Your task to perform on an android device: change timer sound Image 0: 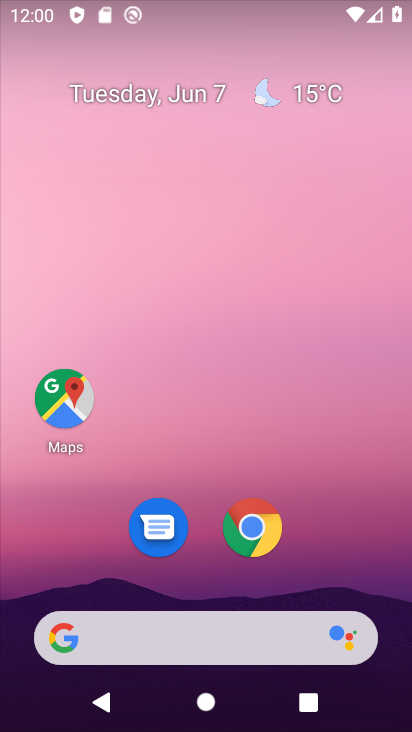
Step 0: drag from (190, 573) to (187, 212)
Your task to perform on an android device: change timer sound Image 1: 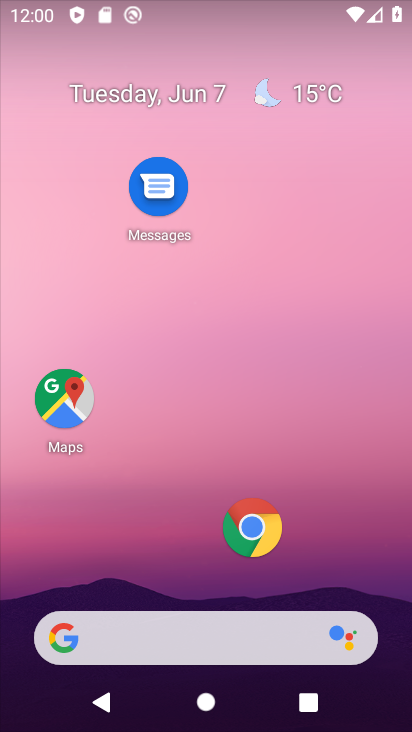
Step 1: drag from (228, 587) to (284, 183)
Your task to perform on an android device: change timer sound Image 2: 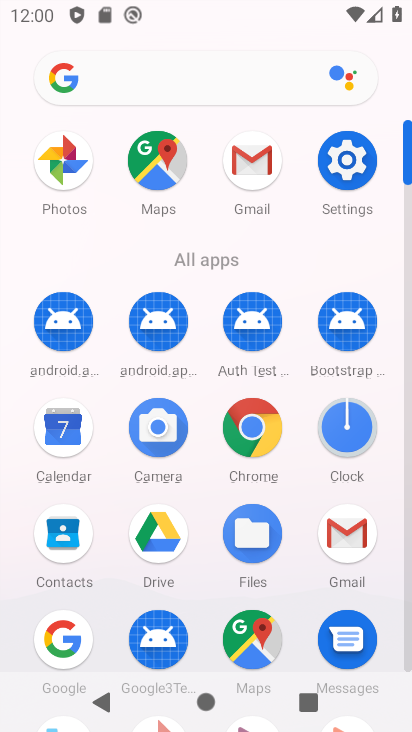
Step 2: click (343, 438)
Your task to perform on an android device: change timer sound Image 3: 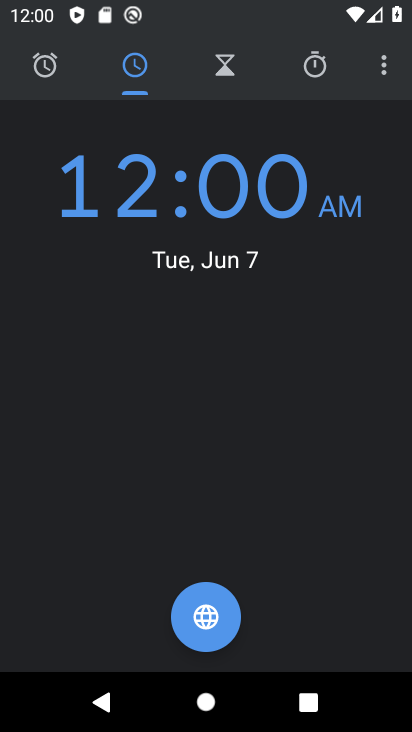
Step 3: click (234, 66)
Your task to perform on an android device: change timer sound Image 4: 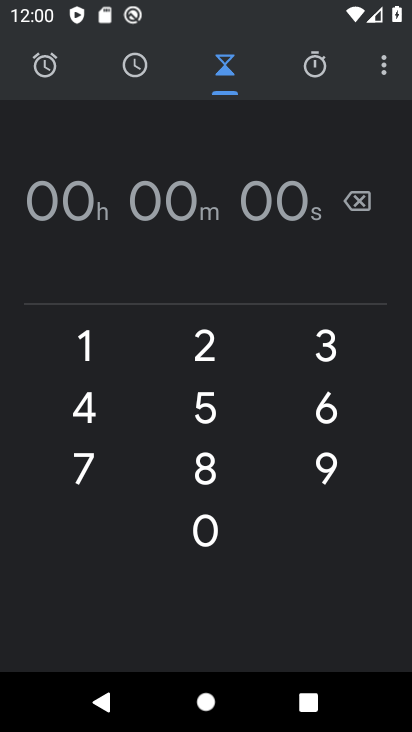
Step 4: click (223, 531)
Your task to perform on an android device: change timer sound Image 5: 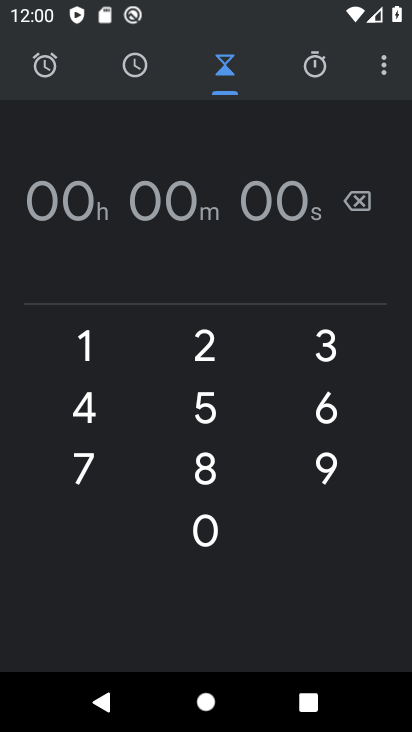
Step 5: click (209, 395)
Your task to perform on an android device: change timer sound Image 6: 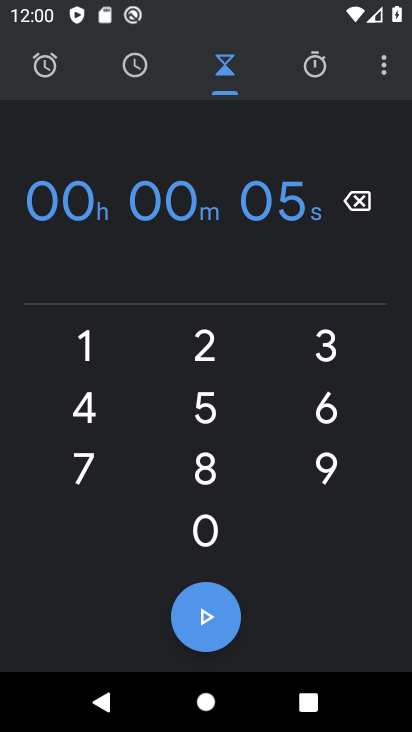
Step 6: click (200, 535)
Your task to perform on an android device: change timer sound Image 7: 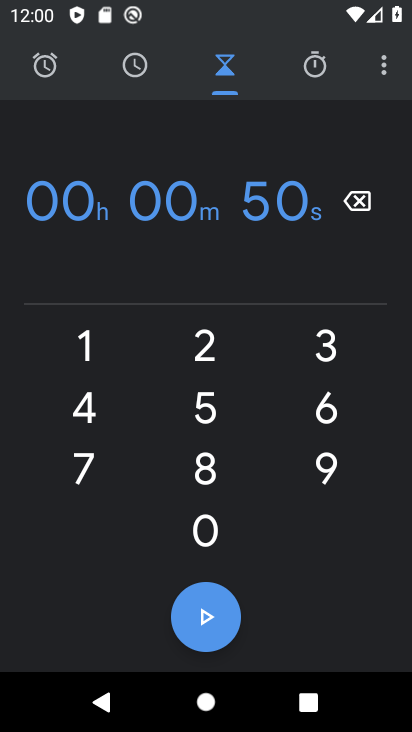
Step 7: click (200, 535)
Your task to perform on an android device: change timer sound Image 8: 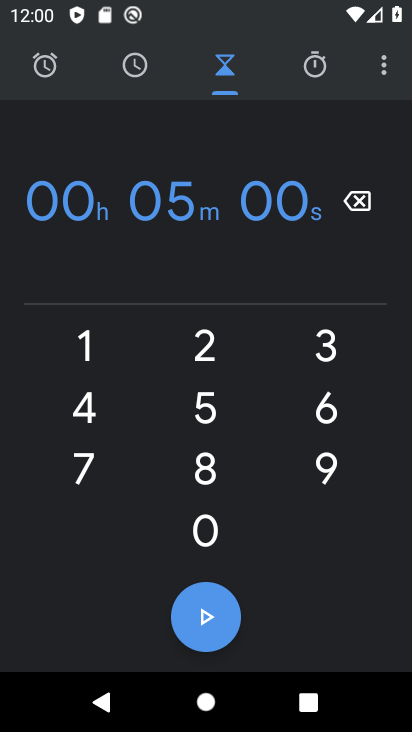
Step 8: click (215, 623)
Your task to perform on an android device: change timer sound Image 9: 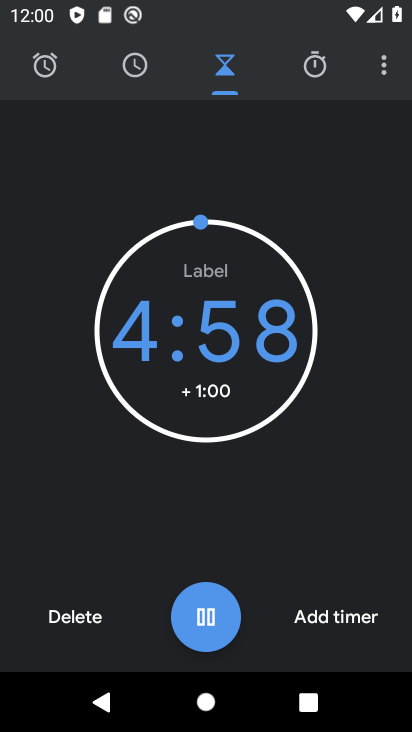
Step 9: task complete